Your task to perform on an android device: snooze an email in the gmail app Image 0: 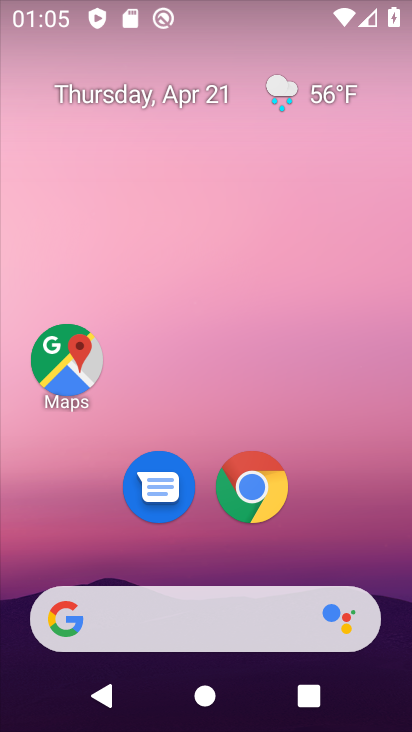
Step 0: drag from (333, 473) to (350, 65)
Your task to perform on an android device: snooze an email in the gmail app Image 1: 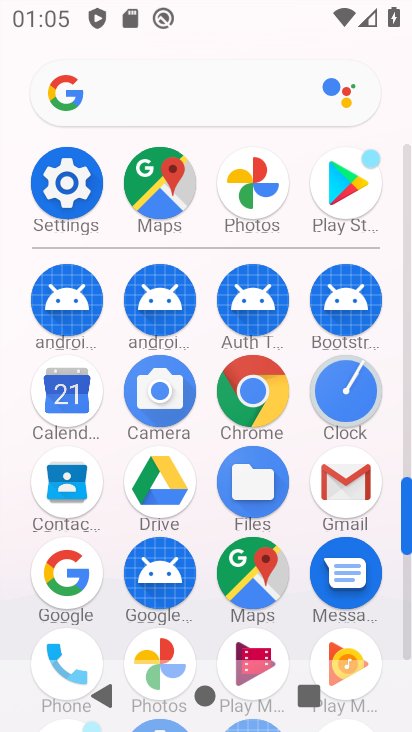
Step 1: click (332, 477)
Your task to perform on an android device: snooze an email in the gmail app Image 2: 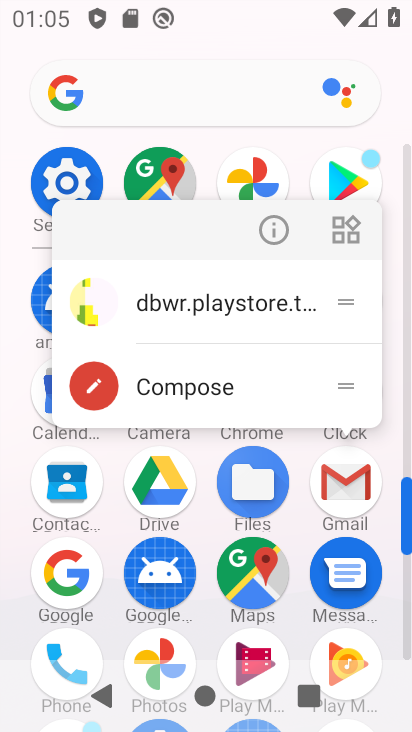
Step 2: click (332, 477)
Your task to perform on an android device: snooze an email in the gmail app Image 3: 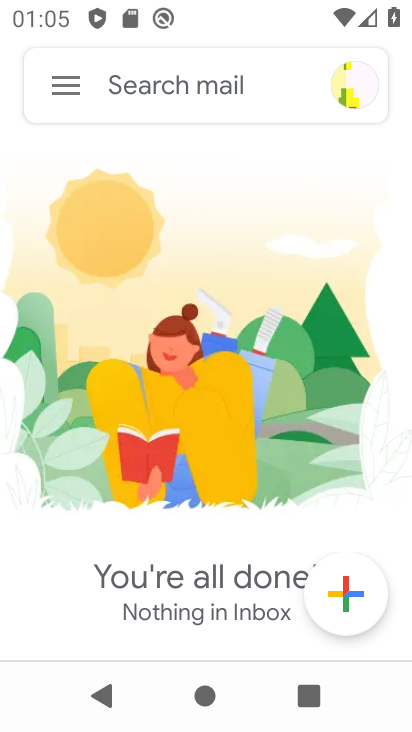
Step 3: click (74, 89)
Your task to perform on an android device: snooze an email in the gmail app Image 4: 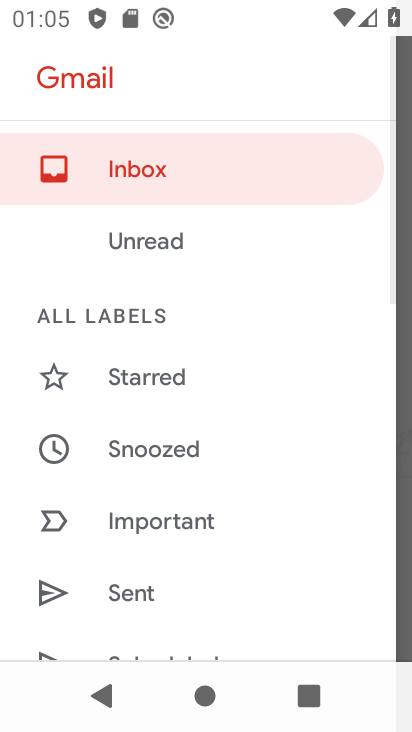
Step 4: drag from (148, 511) to (175, 433)
Your task to perform on an android device: snooze an email in the gmail app Image 5: 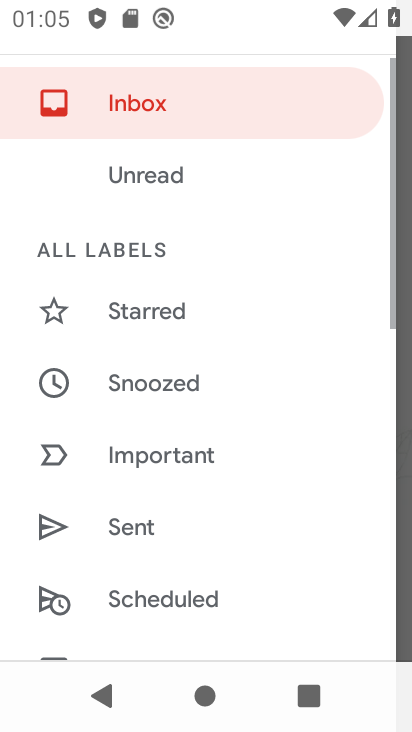
Step 5: drag from (177, 553) to (175, 473)
Your task to perform on an android device: snooze an email in the gmail app Image 6: 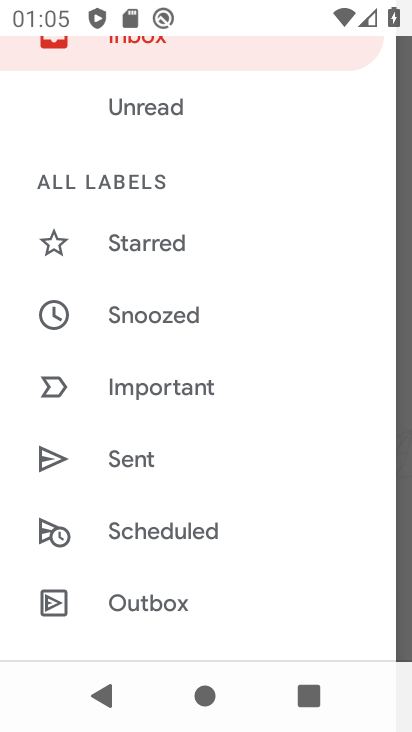
Step 6: drag from (175, 573) to (173, 490)
Your task to perform on an android device: snooze an email in the gmail app Image 7: 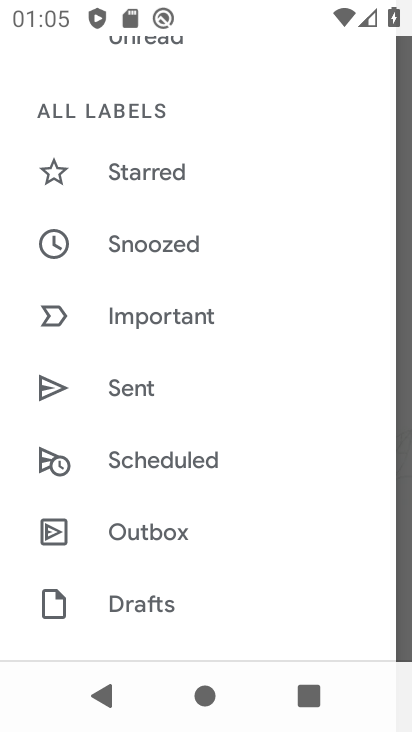
Step 7: drag from (177, 560) to (177, 478)
Your task to perform on an android device: snooze an email in the gmail app Image 8: 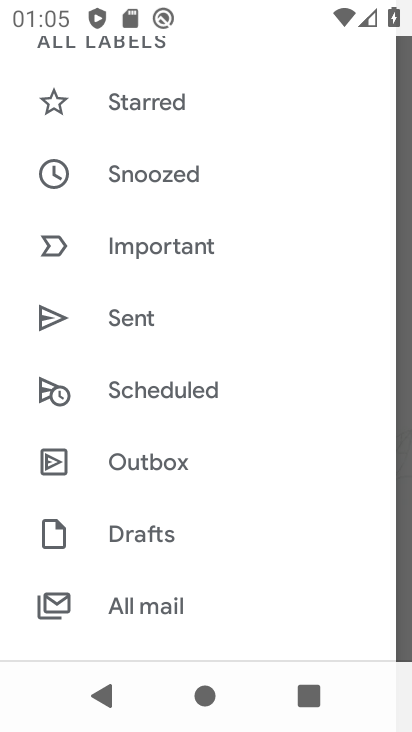
Step 8: click (182, 595)
Your task to perform on an android device: snooze an email in the gmail app Image 9: 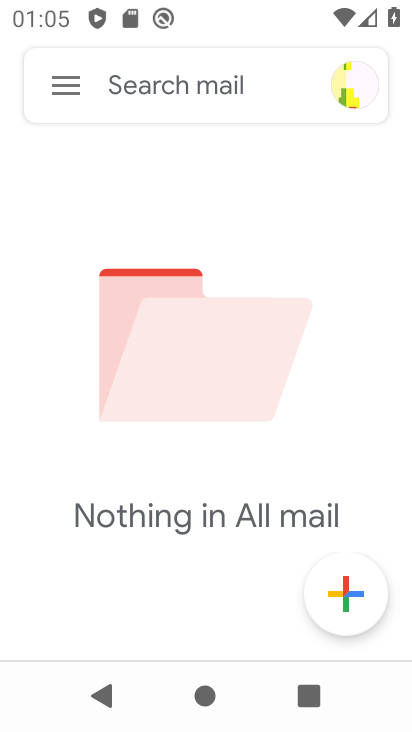
Step 9: task complete